Your task to perform on an android device: Open the Play Movies app and select the watchlist tab. Image 0: 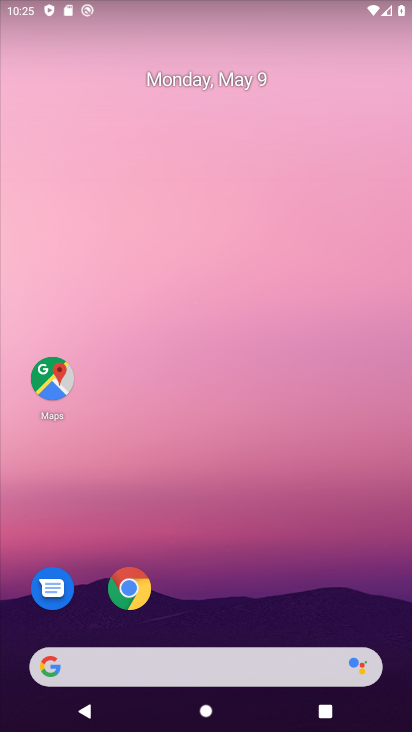
Step 0: click (202, 262)
Your task to perform on an android device: Open the Play Movies app and select the watchlist tab. Image 1: 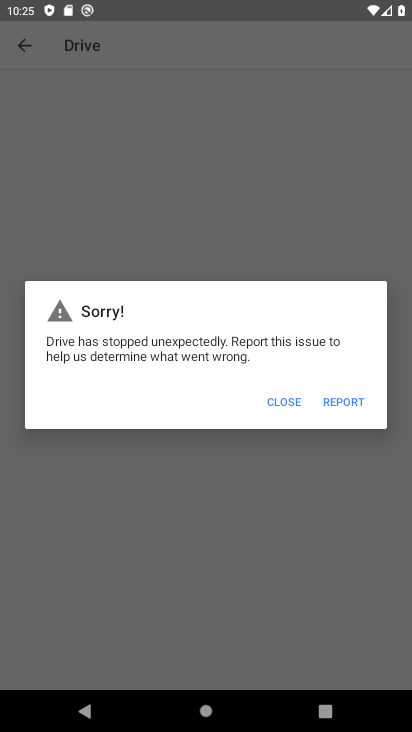
Step 1: press home button
Your task to perform on an android device: Open the Play Movies app and select the watchlist tab. Image 2: 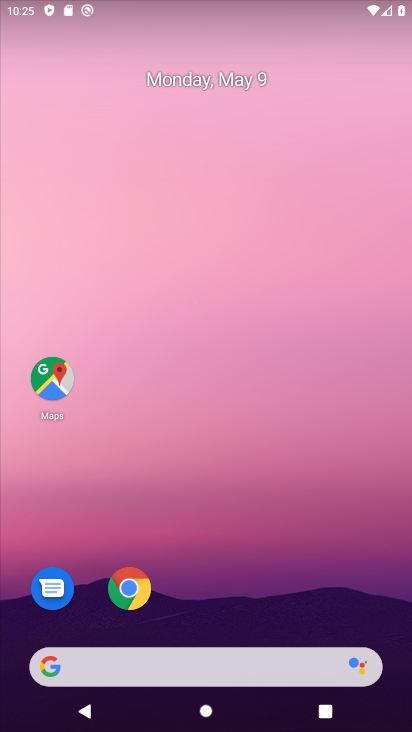
Step 2: click (230, 600)
Your task to perform on an android device: Open the Play Movies app and select the watchlist tab. Image 3: 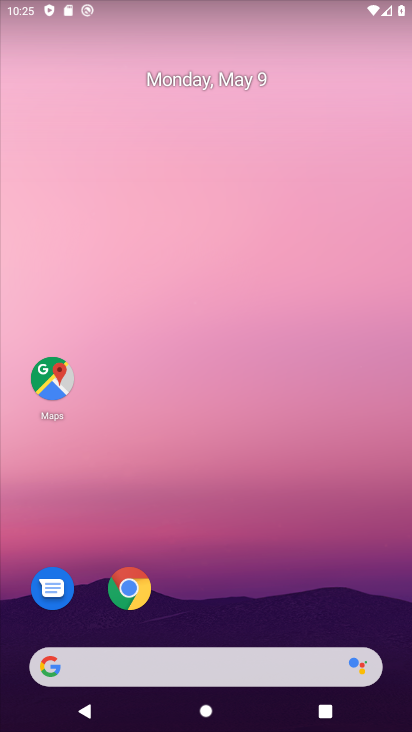
Step 3: click (226, 242)
Your task to perform on an android device: Open the Play Movies app and select the watchlist tab. Image 4: 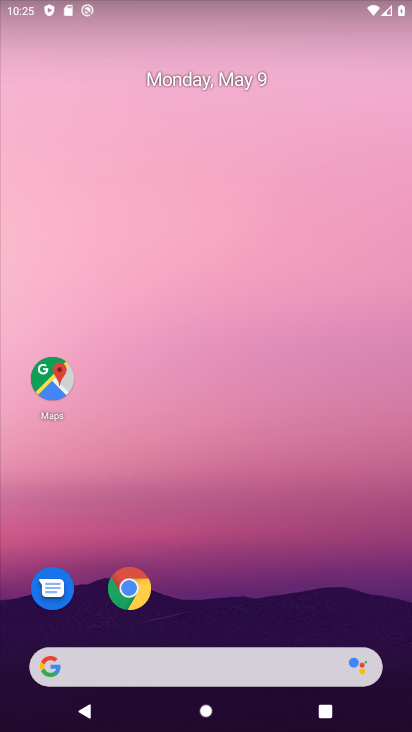
Step 4: drag from (222, 720) to (221, 204)
Your task to perform on an android device: Open the Play Movies app and select the watchlist tab. Image 5: 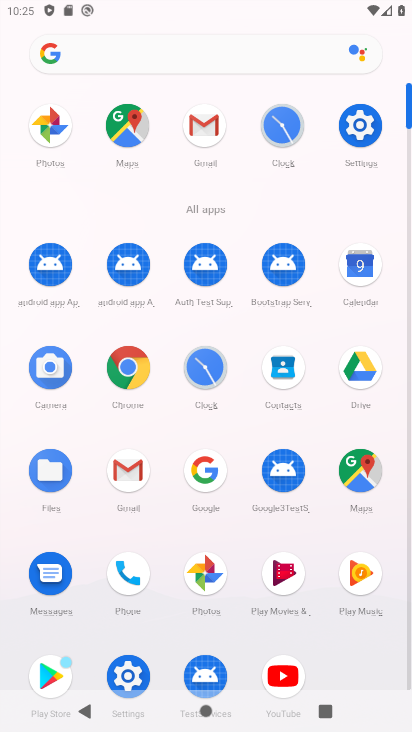
Step 5: click (278, 576)
Your task to perform on an android device: Open the Play Movies app and select the watchlist tab. Image 6: 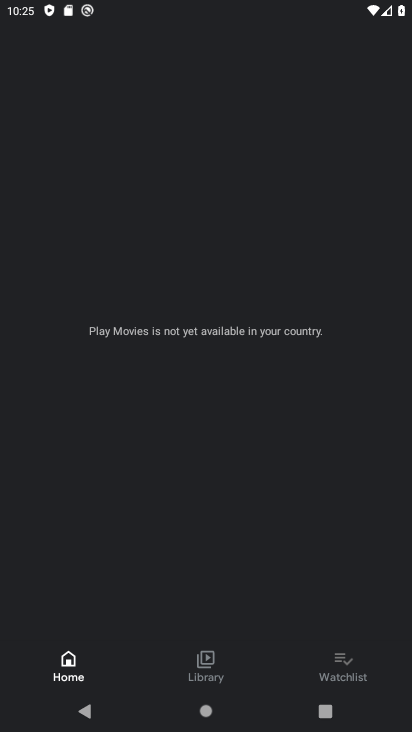
Step 6: click (340, 668)
Your task to perform on an android device: Open the Play Movies app and select the watchlist tab. Image 7: 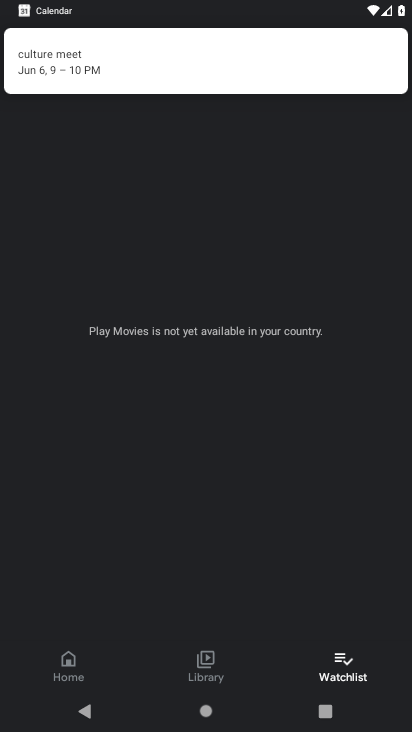
Step 7: task complete